Your task to perform on an android device: What's on my calendar today? Image 0: 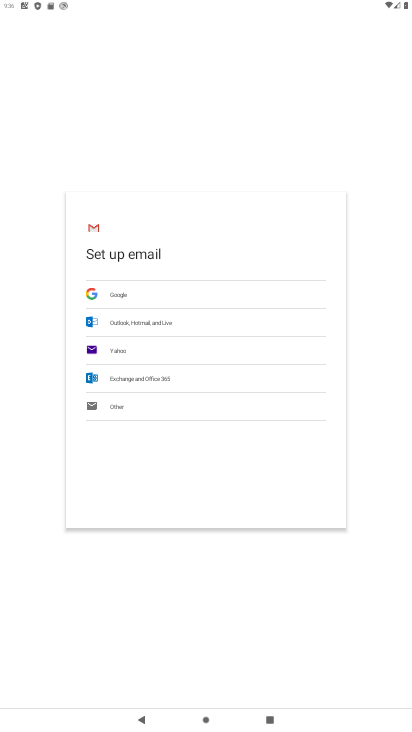
Step 0: press home button
Your task to perform on an android device: What's on my calendar today? Image 1: 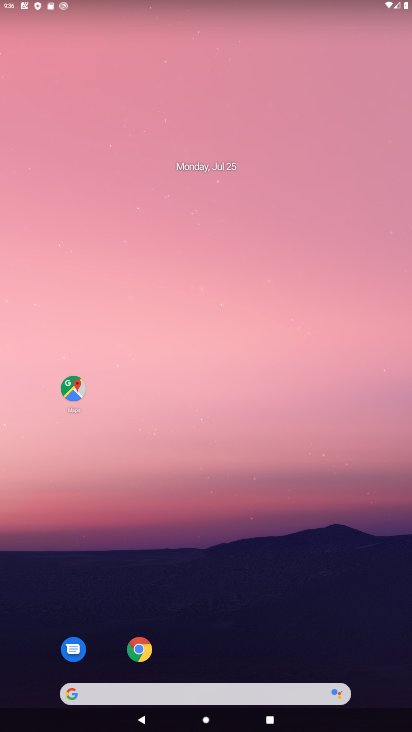
Step 1: drag from (300, 576) to (120, 21)
Your task to perform on an android device: What's on my calendar today? Image 2: 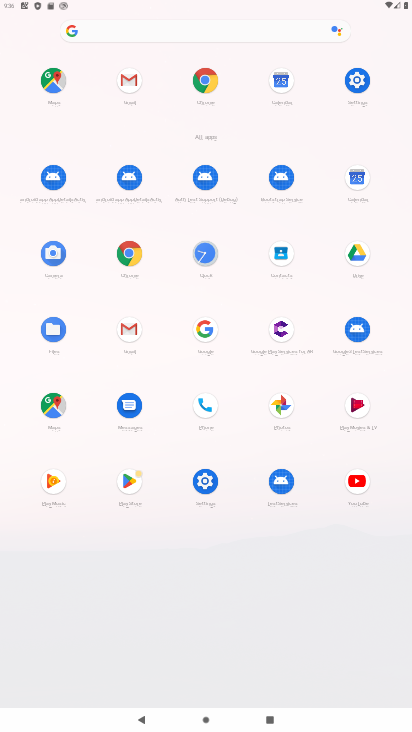
Step 2: click (359, 181)
Your task to perform on an android device: What's on my calendar today? Image 3: 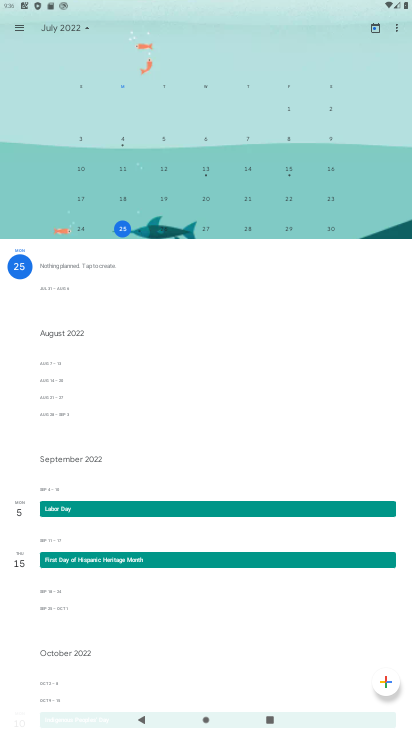
Step 3: task complete